Your task to perform on an android device: check the backup settings in the google photos Image 0: 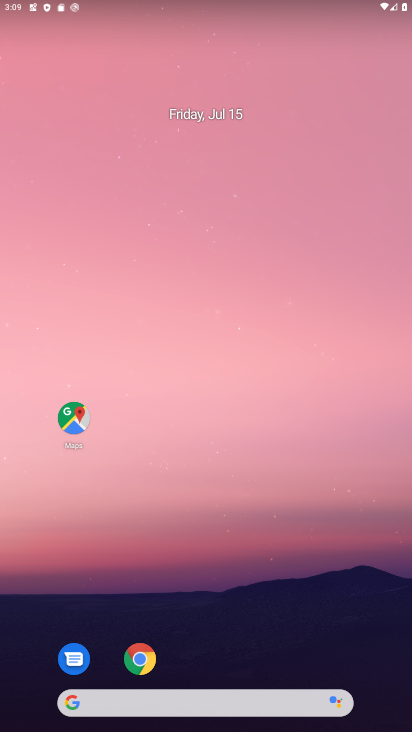
Step 0: drag from (30, 695) to (227, 159)
Your task to perform on an android device: check the backup settings in the google photos Image 1: 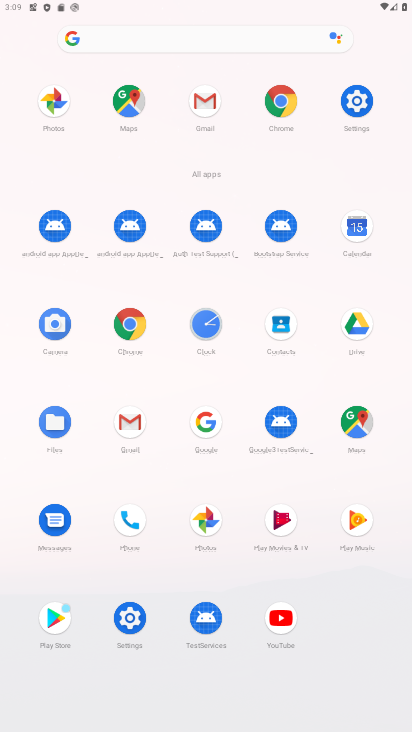
Step 1: click (208, 514)
Your task to perform on an android device: check the backup settings in the google photos Image 2: 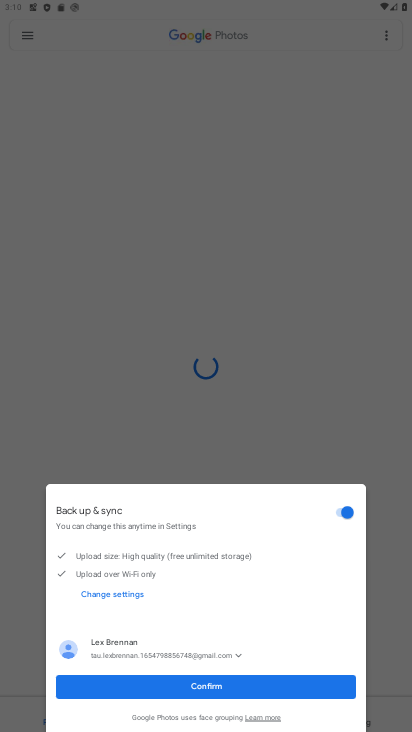
Step 2: click (144, 684)
Your task to perform on an android device: check the backup settings in the google photos Image 3: 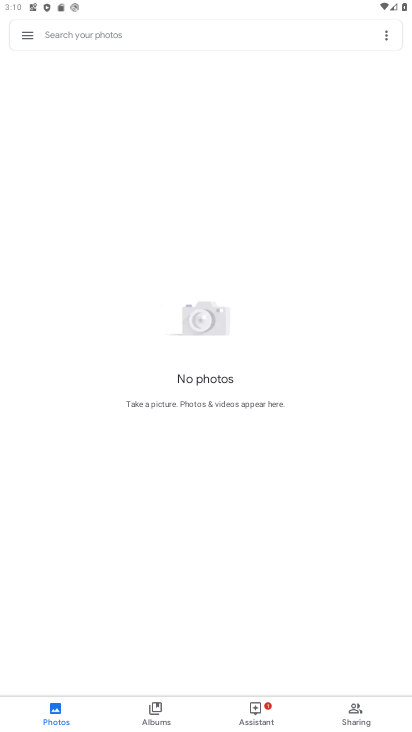
Step 3: click (26, 42)
Your task to perform on an android device: check the backup settings in the google photos Image 4: 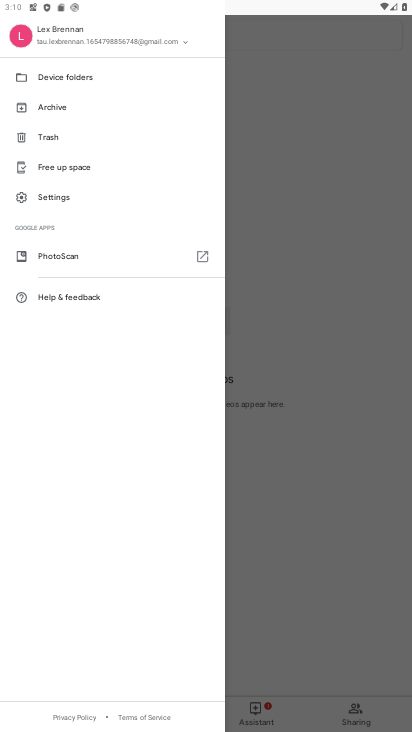
Step 4: click (42, 201)
Your task to perform on an android device: check the backup settings in the google photos Image 5: 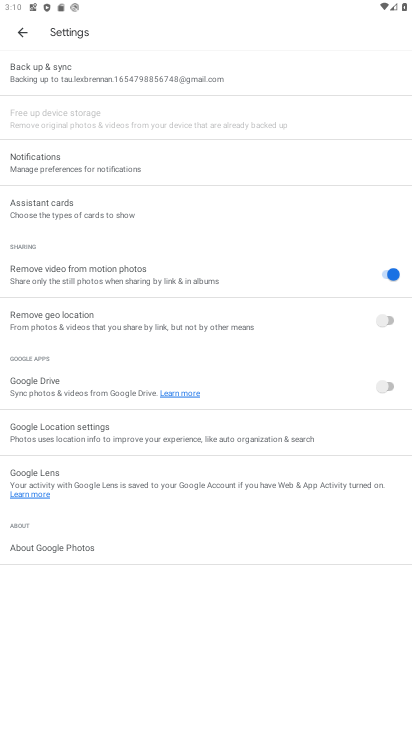
Step 5: click (23, 69)
Your task to perform on an android device: check the backup settings in the google photos Image 6: 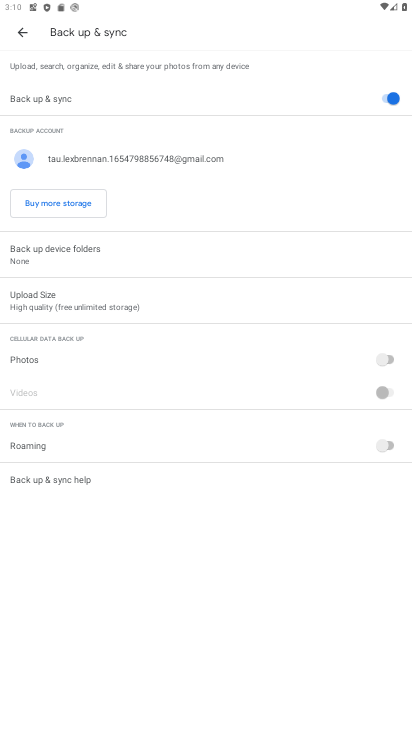
Step 6: click (57, 99)
Your task to perform on an android device: check the backup settings in the google photos Image 7: 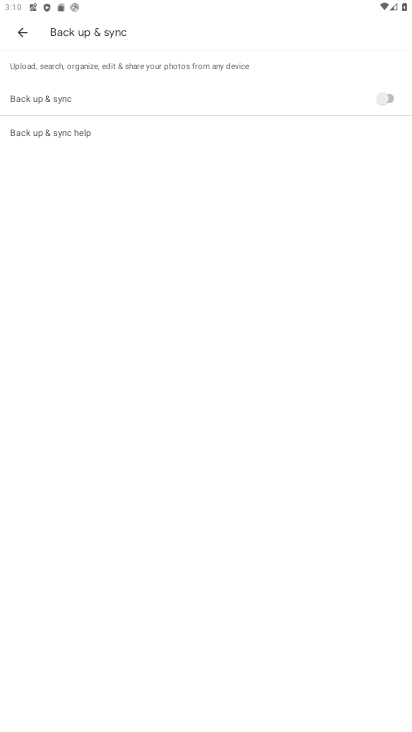
Step 7: click (57, 99)
Your task to perform on an android device: check the backup settings in the google photos Image 8: 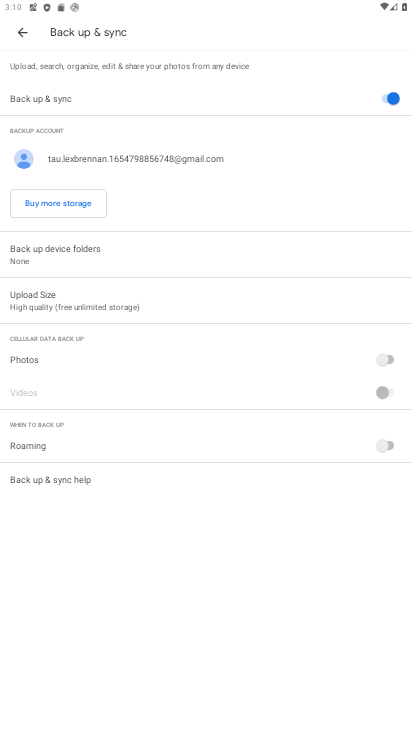
Step 8: task complete